Your task to perform on an android device: Clear all items from cart on walmart. Image 0: 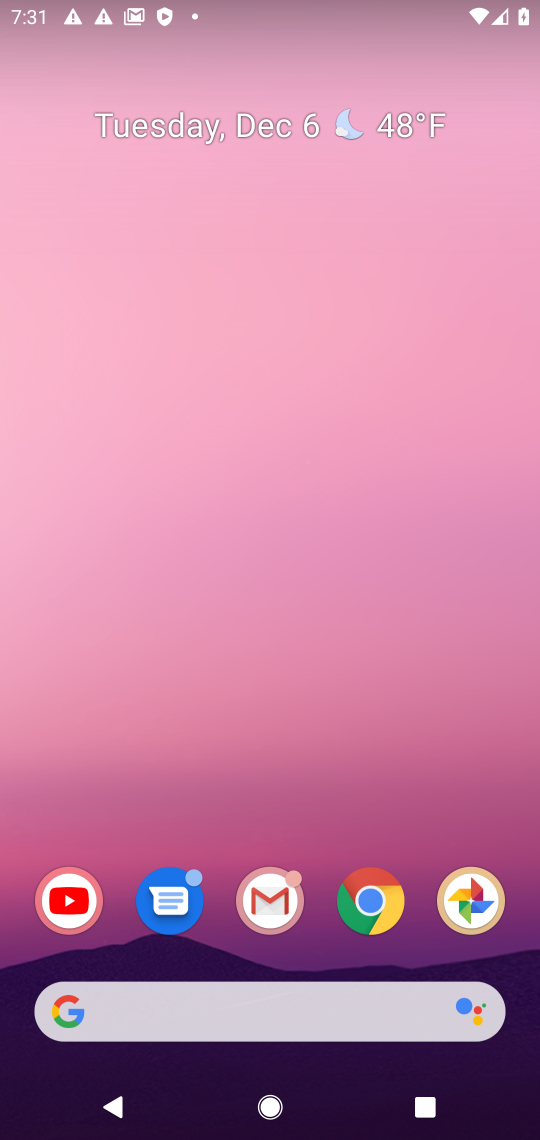
Step 0: click (254, 567)
Your task to perform on an android device: Clear all items from cart on walmart. Image 1: 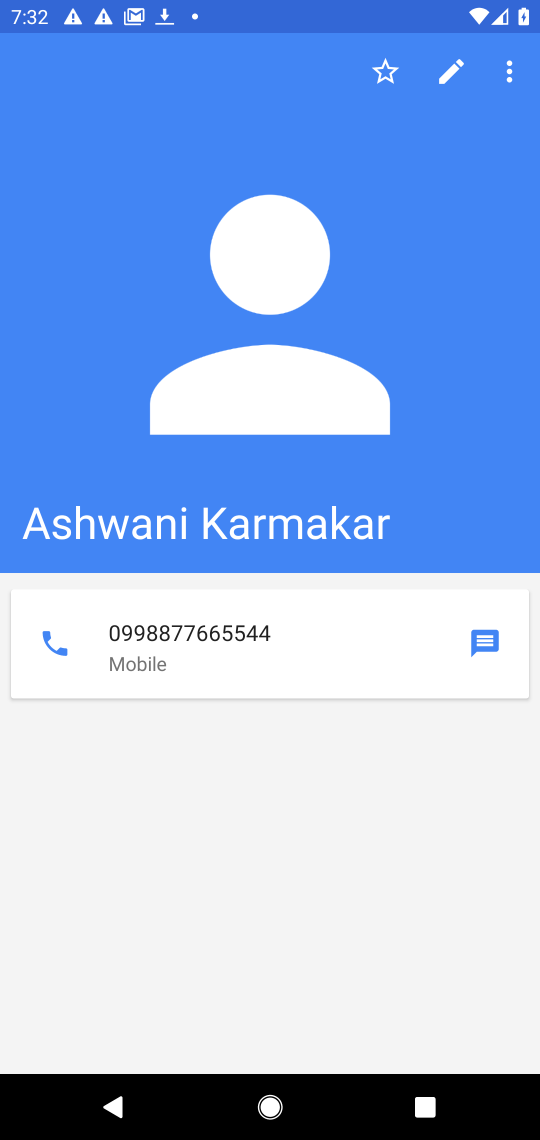
Step 1: press home button
Your task to perform on an android device: Clear all items from cart on walmart. Image 2: 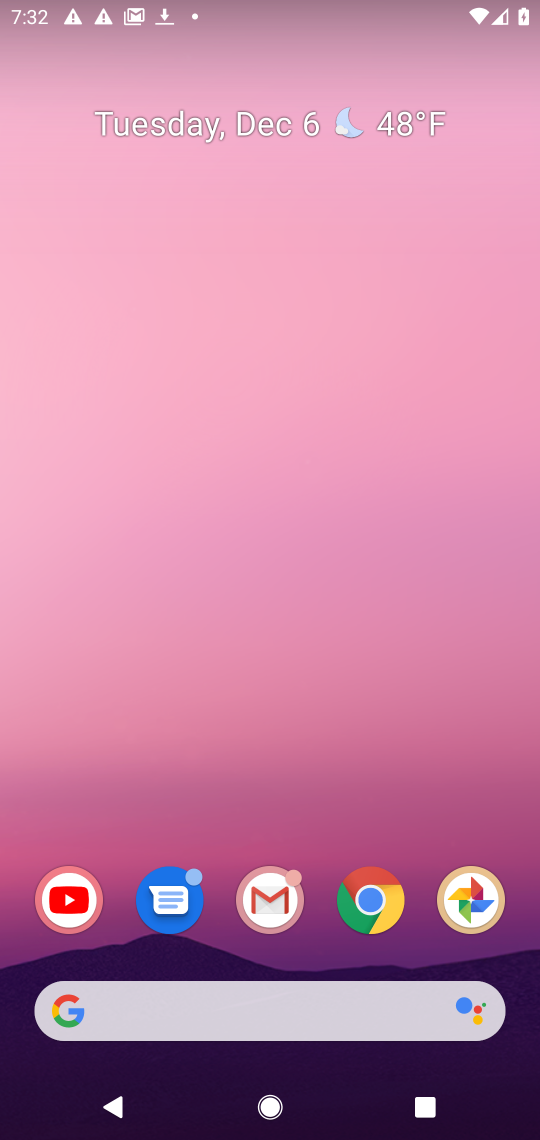
Step 2: drag from (167, 925) to (167, 661)
Your task to perform on an android device: Clear all items from cart on walmart. Image 3: 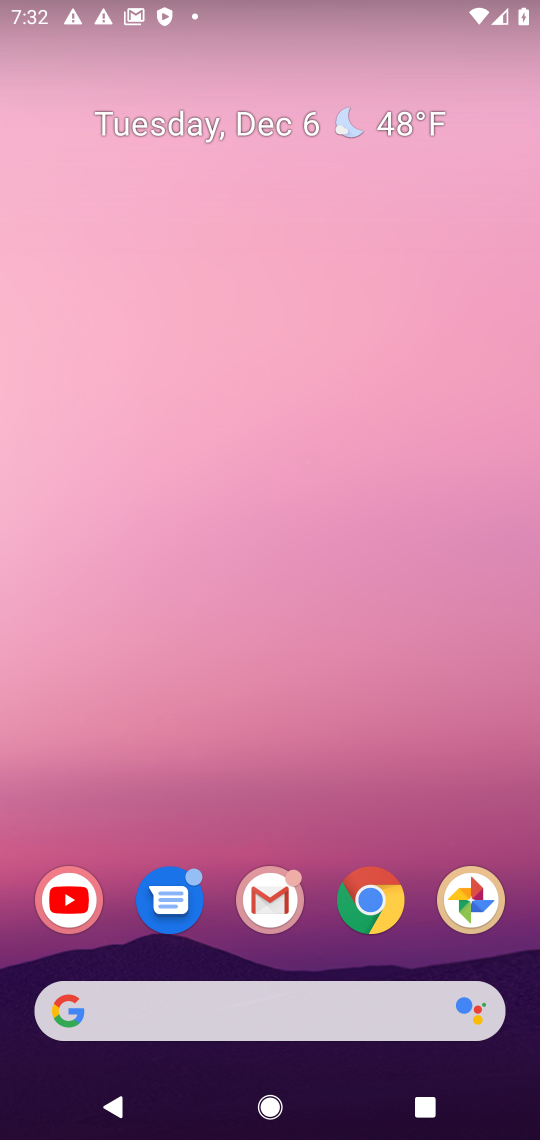
Step 3: drag from (280, 997) to (367, 166)
Your task to perform on an android device: Clear all items from cart on walmart. Image 4: 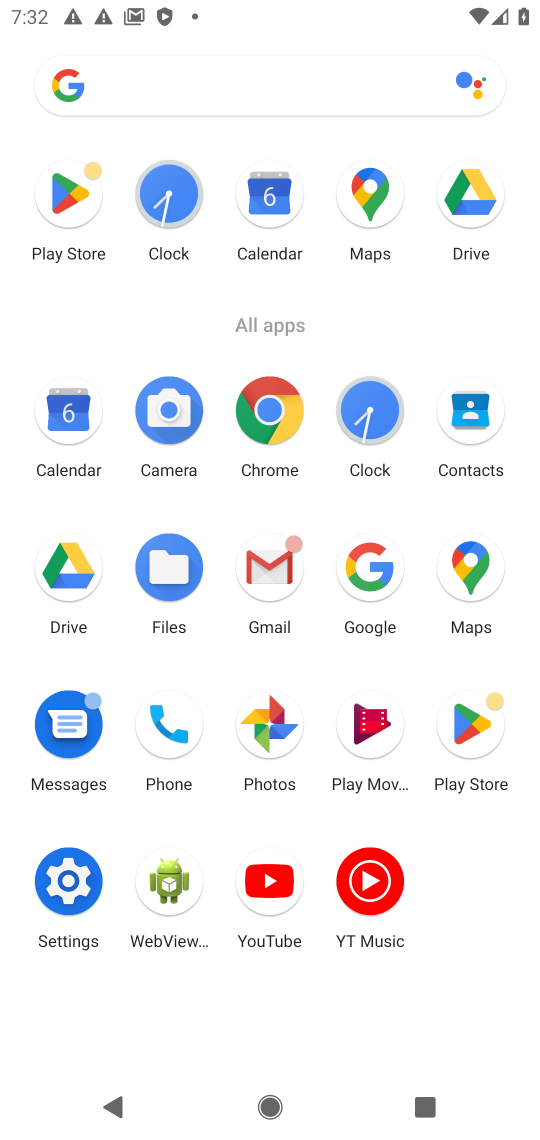
Step 4: click (352, 574)
Your task to perform on an android device: Clear all items from cart on walmart. Image 5: 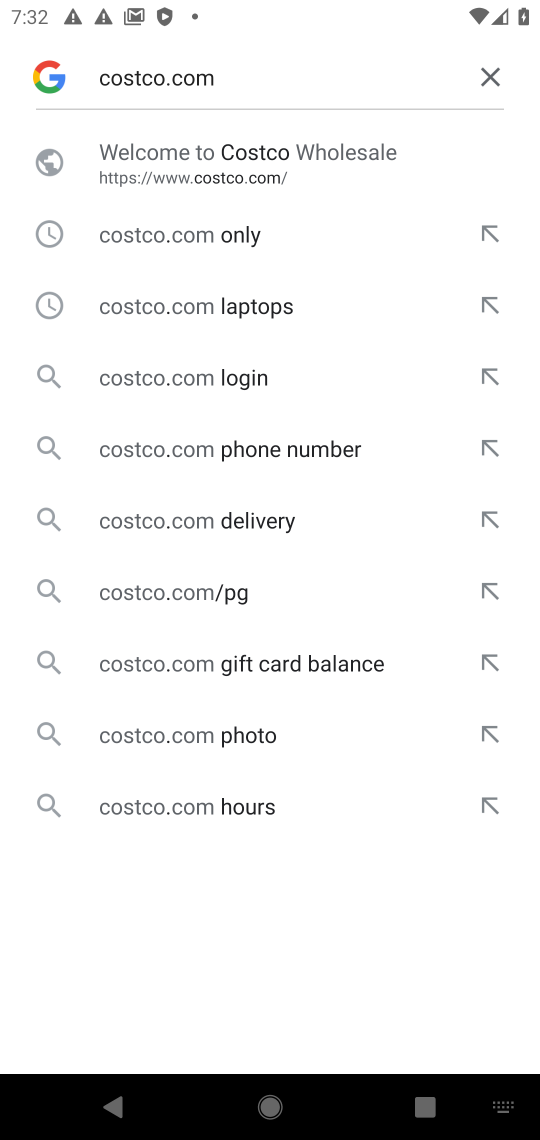
Step 5: click (205, 78)
Your task to perform on an android device: Clear all items from cart on walmart. Image 6: 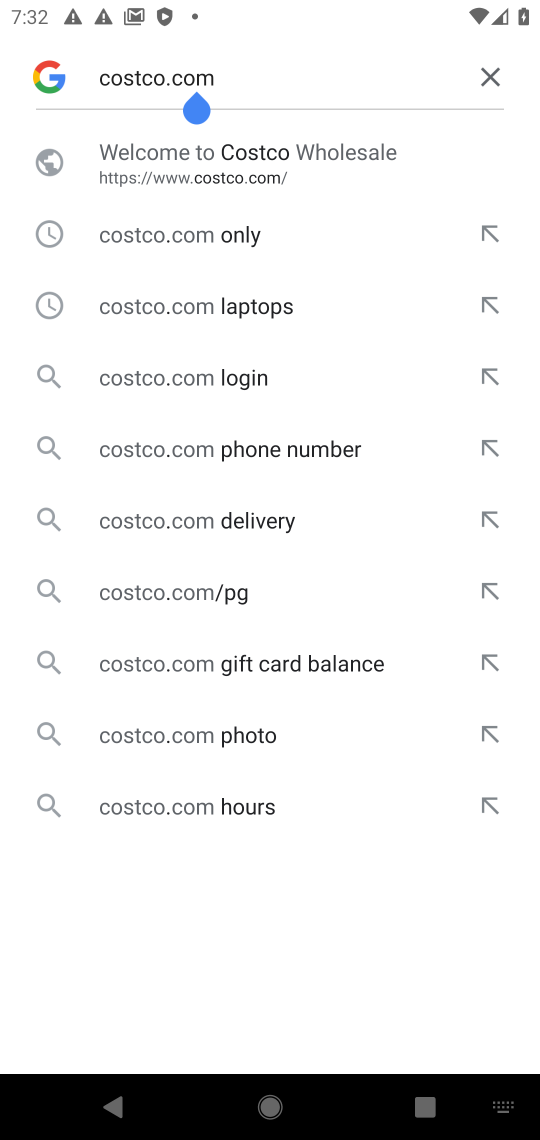
Step 6: click (491, 76)
Your task to perform on an android device: Clear all items from cart on walmart. Image 7: 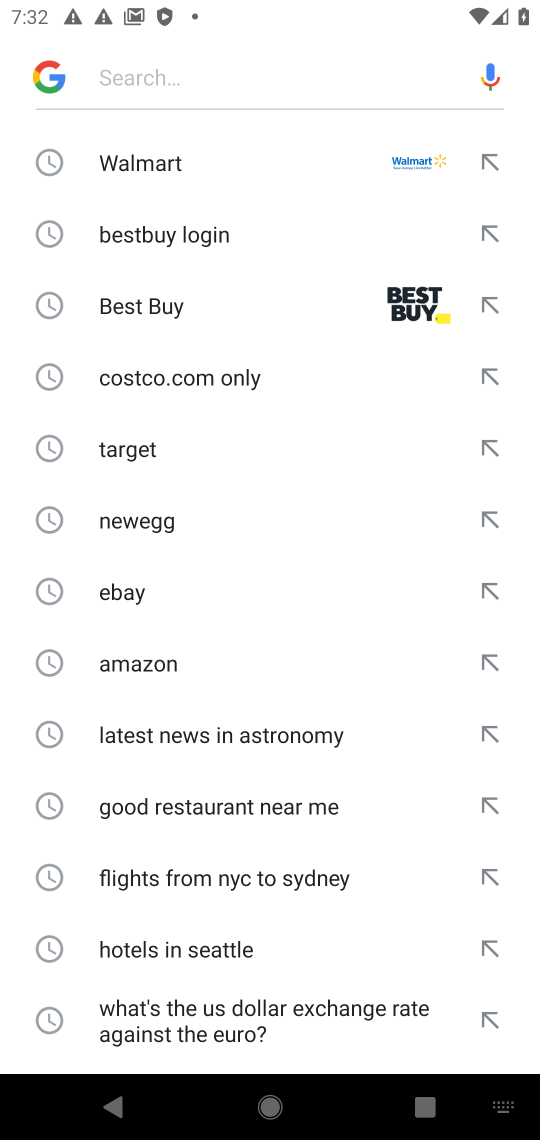
Step 7: click (399, 161)
Your task to perform on an android device: Clear all items from cart on walmart. Image 8: 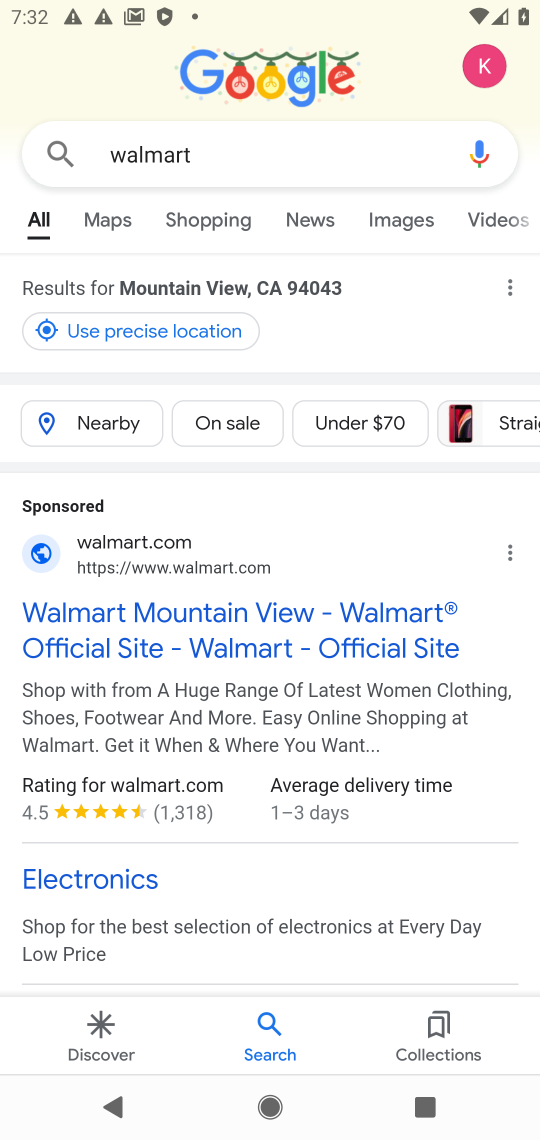
Step 8: click (146, 617)
Your task to perform on an android device: Clear all items from cart on walmart. Image 9: 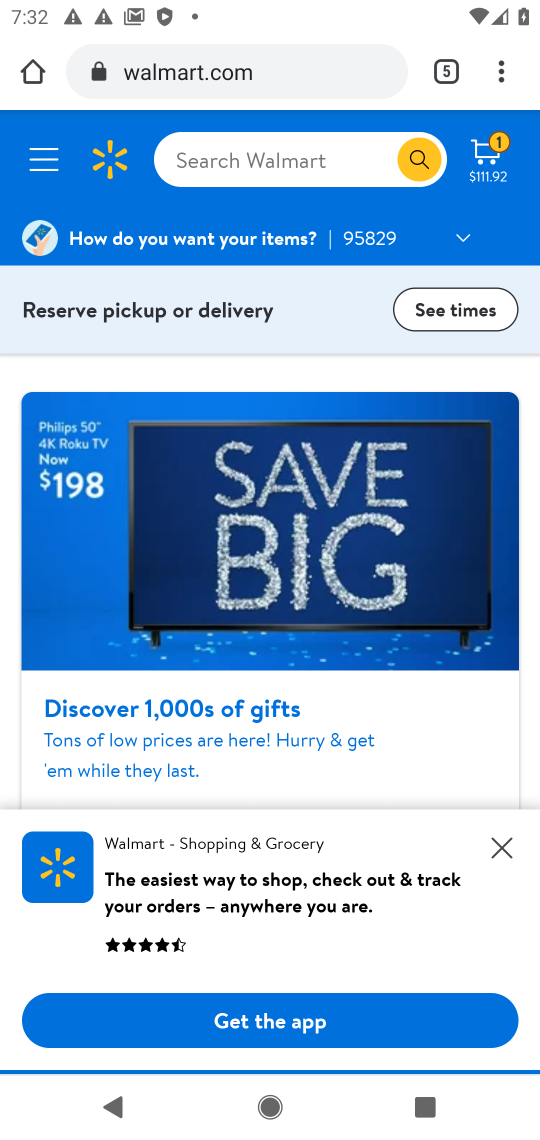
Step 9: click (230, 144)
Your task to perform on an android device: Clear all items from cart on walmart. Image 10: 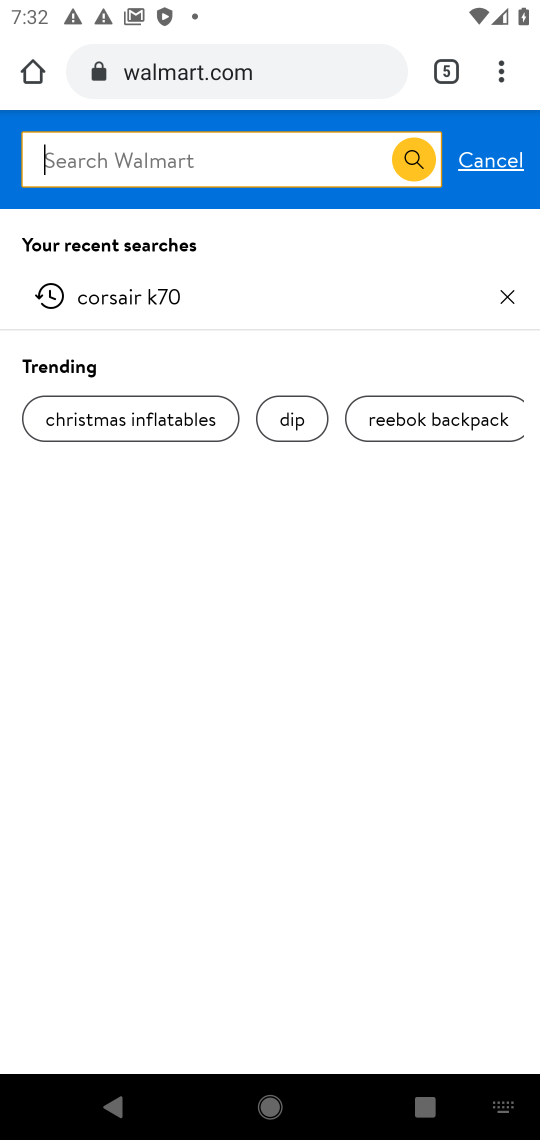
Step 10: click (500, 301)
Your task to perform on an android device: Clear all items from cart on walmart. Image 11: 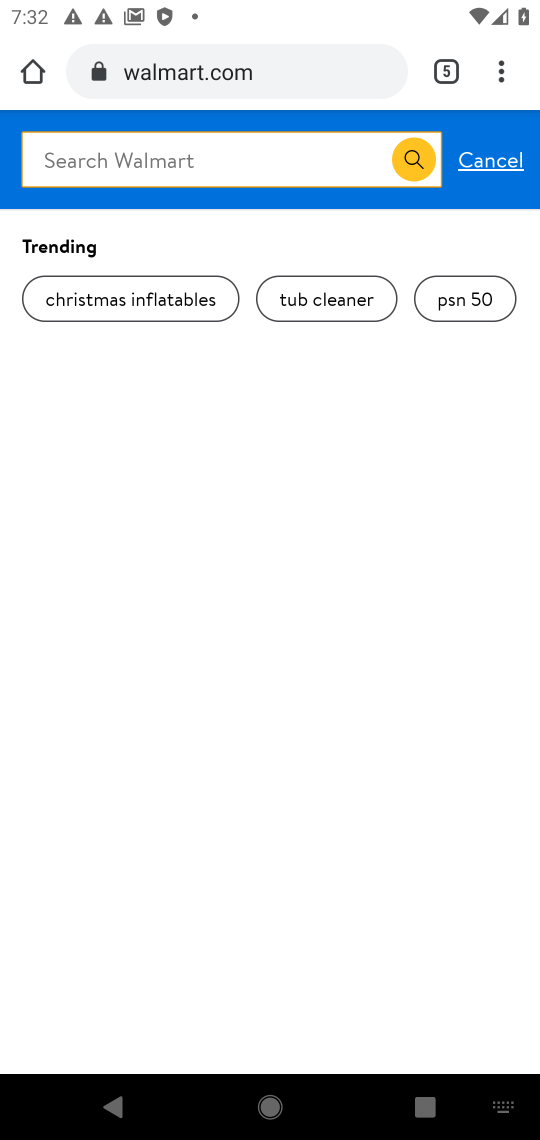
Step 11: task complete